Your task to perform on an android device: Open Yahoo.com Image 0: 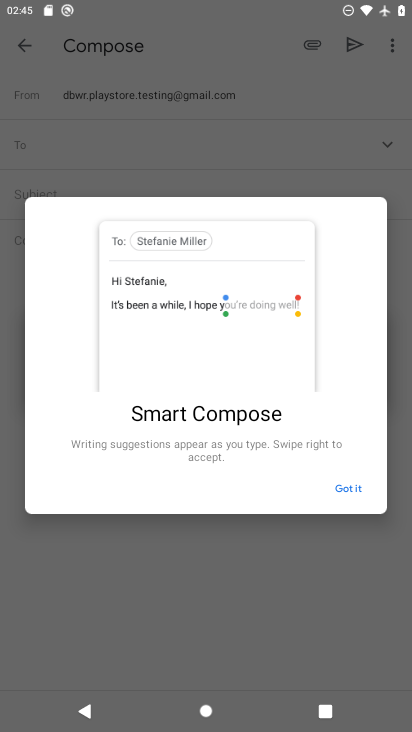
Step 0: press home button
Your task to perform on an android device: Open Yahoo.com Image 1: 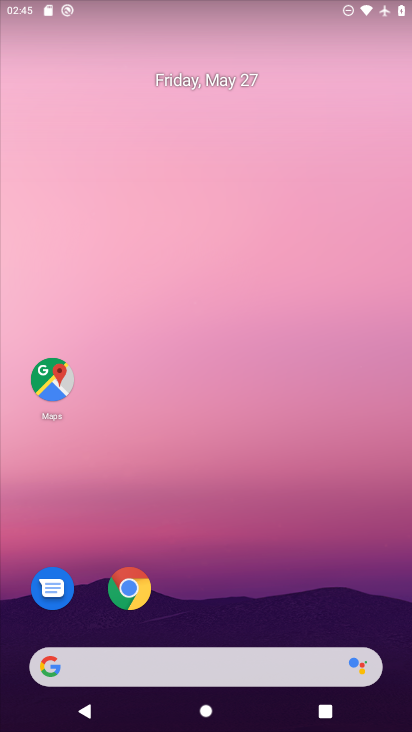
Step 1: click (132, 589)
Your task to perform on an android device: Open Yahoo.com Image 2: 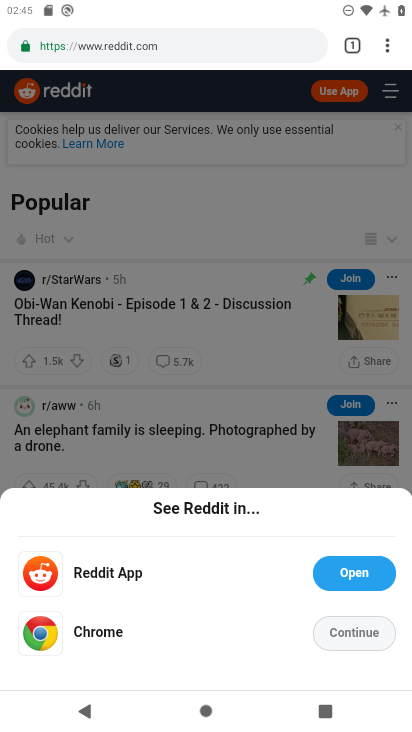
Step 2: click (205, 41)
Your task to perform on an android device: Open Yahoo.com Image 3: 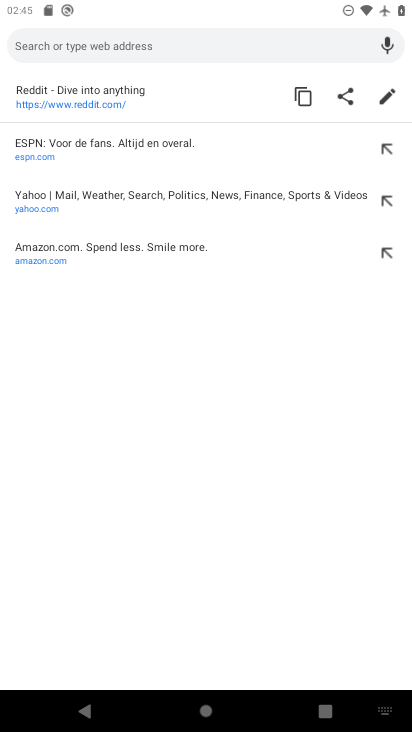
Step 3: type "yahoo.com"
Your task to perform on an android device: Open Yahoo.com Image 4: 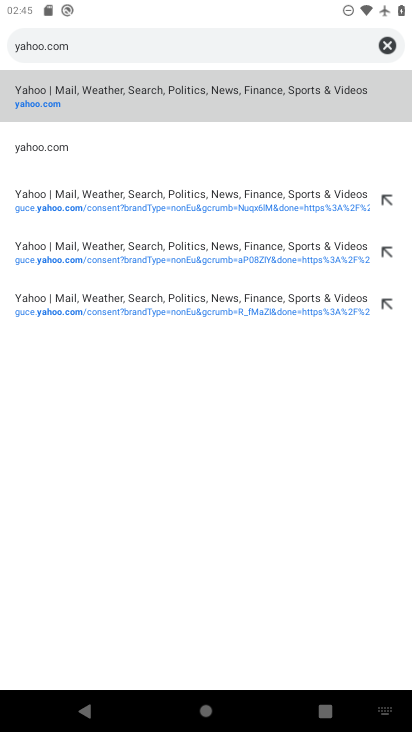
Step 4: click (23, 75)
Your task to perform on an android device: Open Yahoo.com Image 5: 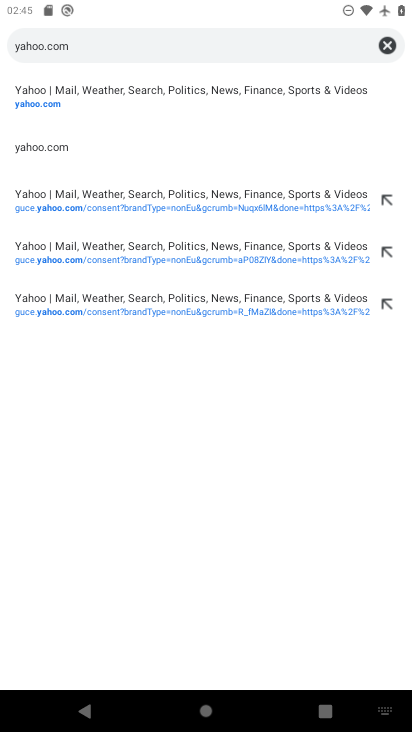
Step 5: click (41, 86)
Your task to perform on an android device: Open Yahoo.com Image 6: 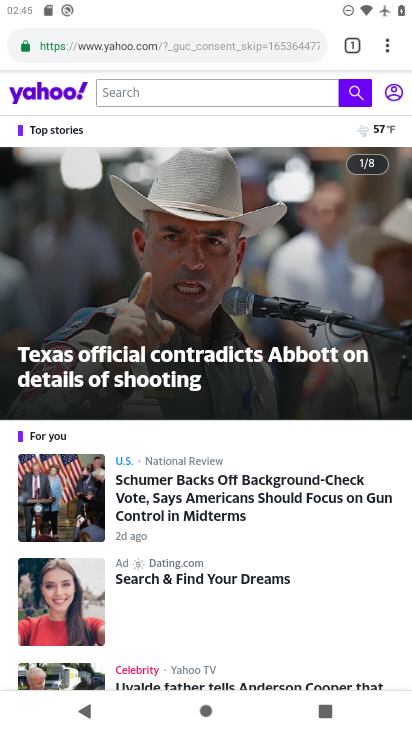
Step 6: task complete